Your task to perform on an android device: check battery use Image 0: 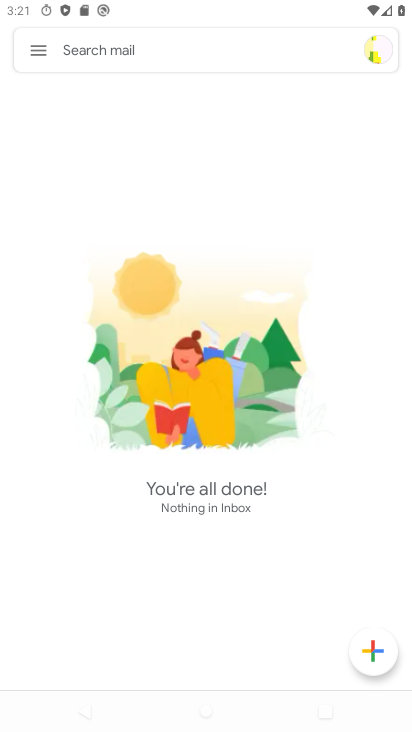
Step 0: press home button
Your task to perform on an android device: check battery use Image 1: 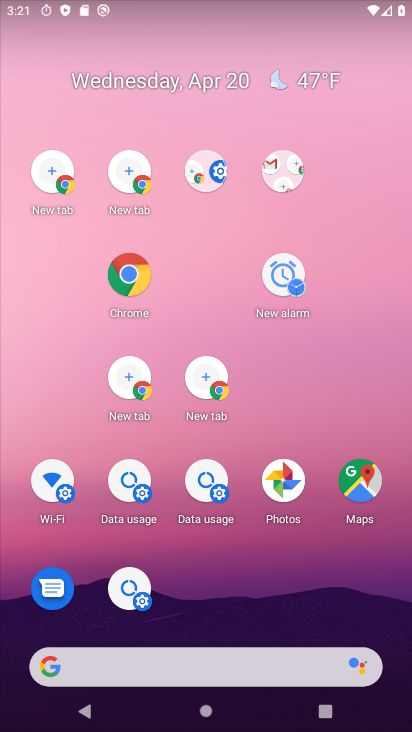
Step 1: drag from (274, 594) to (209, 218)
Your task to perform on an android device: check battery use Image 2: 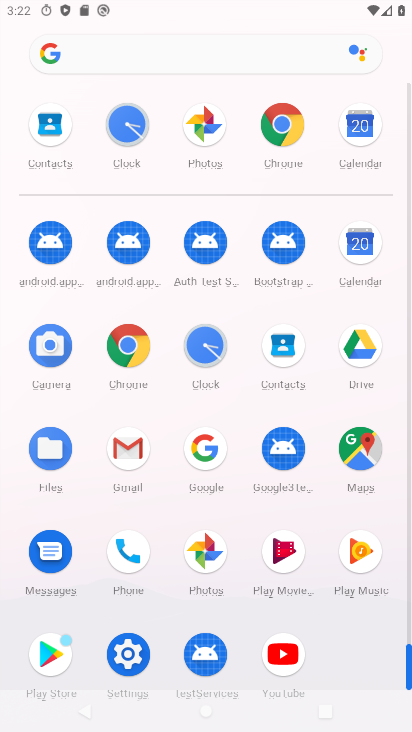
Step 2: click (134, 649)
Your task to perform on an android device: check battery use Image 3: 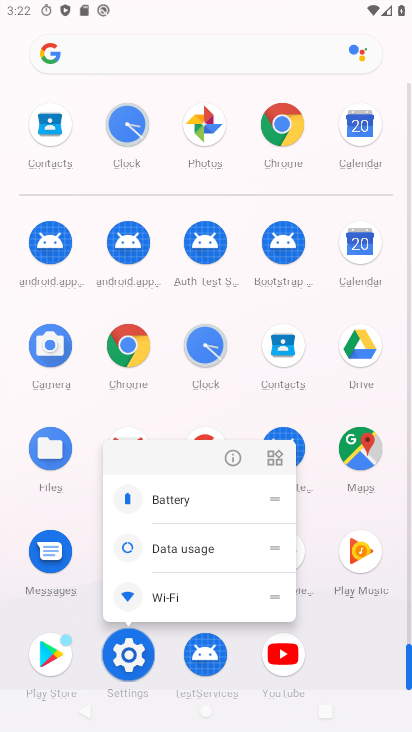
Step 3: click (121, 650)
Your task to perform on an android device: check battery use Image 4: 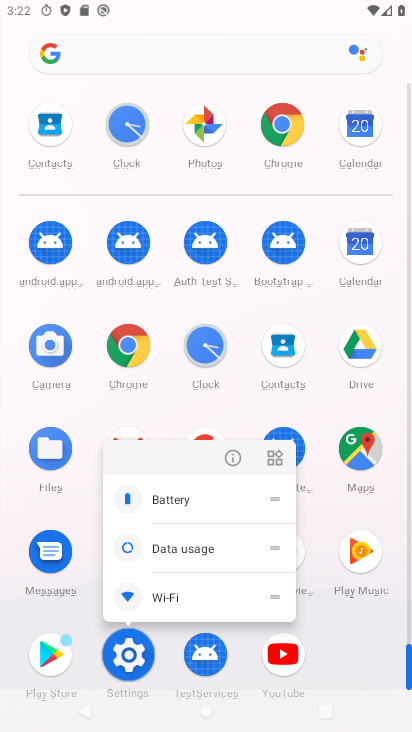
Step 4: click (115, 660)
Your task to perform on an android device: check battery use Image 5: 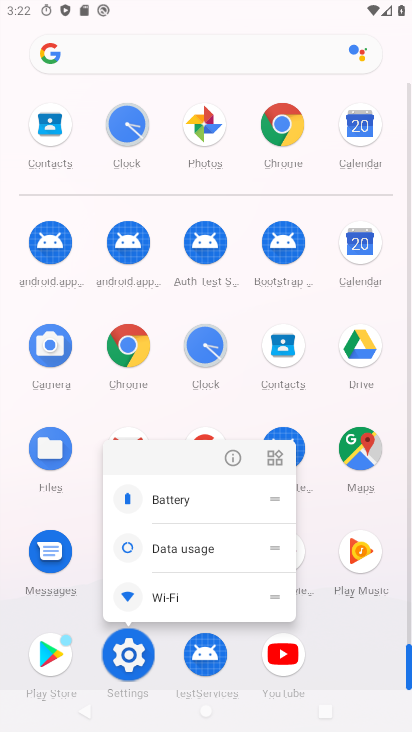
Step 5: click (118, 663)
Your task to perform on an android device: check battery use Image 6: 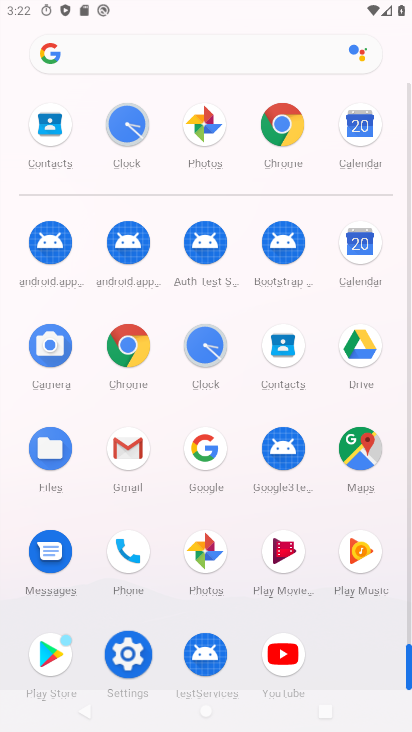
Step 6: click (132, 651)
Your task to perform on an android device: check battery use Image 7: 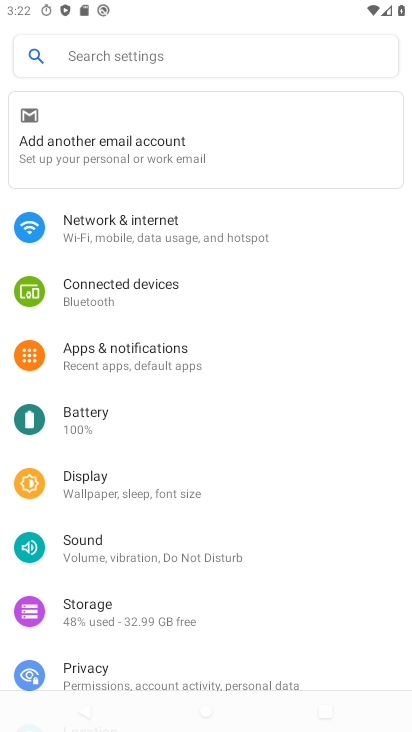
Step 7: click (80, 420)
Your task to perform on an android device: check battery use Image 8: 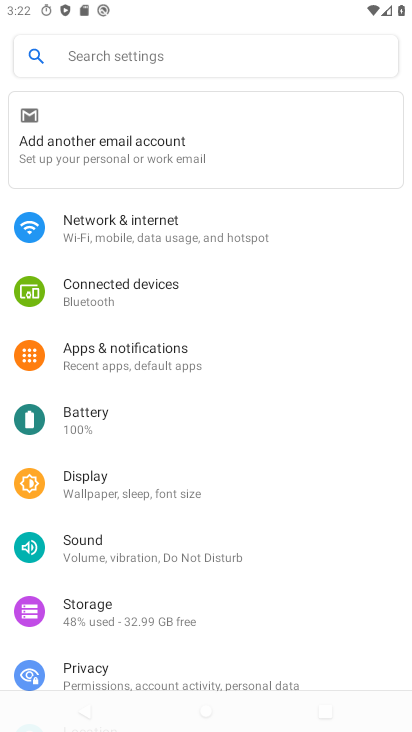
Step 8: click (76, 422)
Your task to perform on an android device: check battery use Image 9: 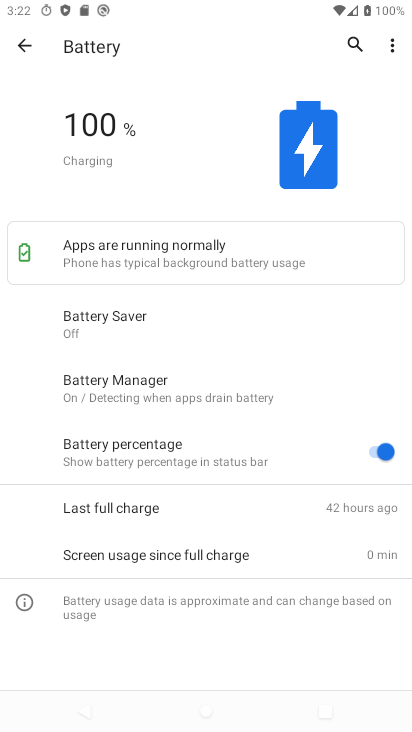
Step 9: task complete